Your task to perform on an android device: stop showing notifications on the lock screen Image 0: 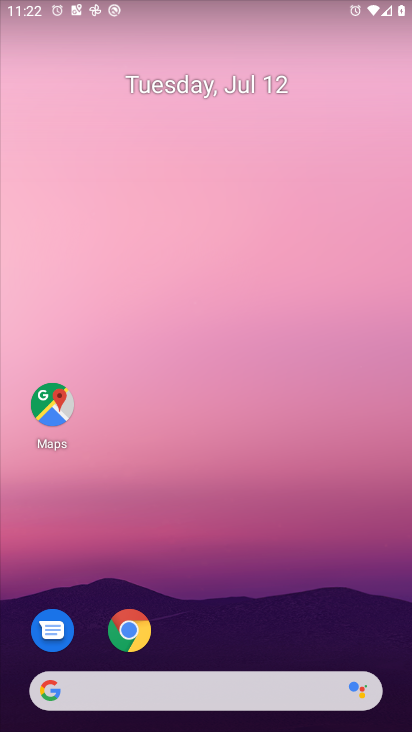
Step 0: drag from (239, 617) to (212, 138)
Your task to perform on an android device: stop showing notifications on the lock screen Image 1: 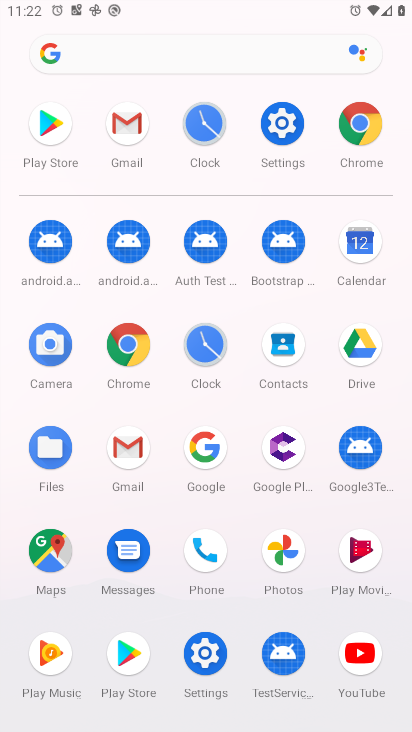
Step 1: click (281, 124)
Your task to perform on an android device: stop showing notifications on the lock screen Image 2: 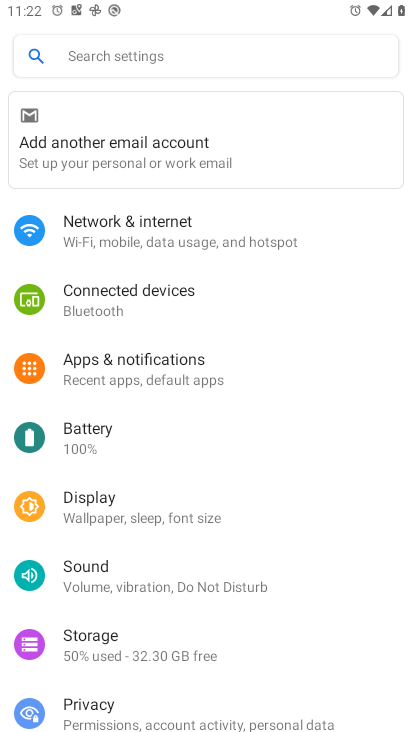
Step 2: click (123, 358)
Your task to perform on an android device: stop showing notifications on the lock screen Image 3: 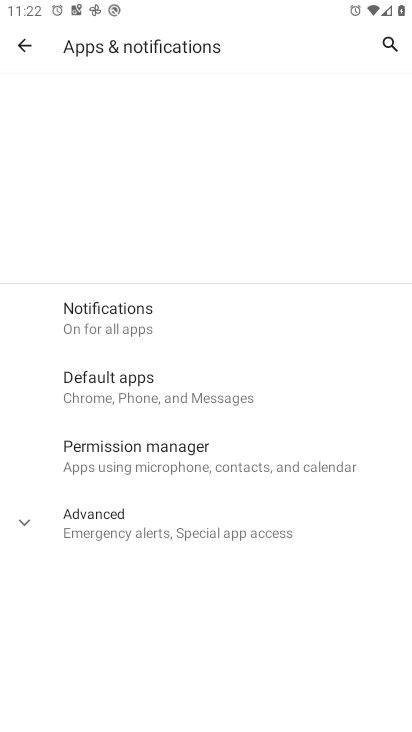
Step 3: click (97, 321)
Your task to perform on an android device: stop showing notifications on the lock screen Image 4: 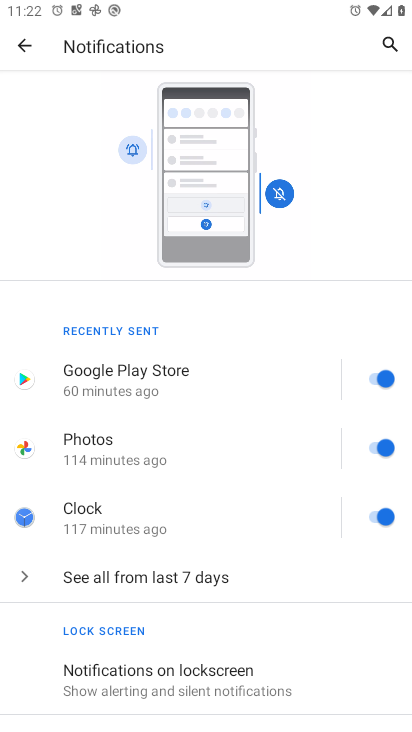
Step 4: click (142, 690)
Your task to perform on an android device: stop showing notifications on the lock screen Image 5: 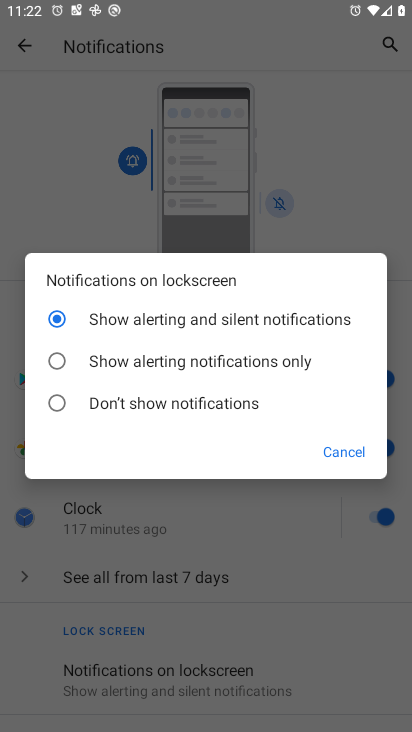
Step 5: click (54, 407)
Your task to perform on an android device: stop showing notifications on the lock screen Image 6: 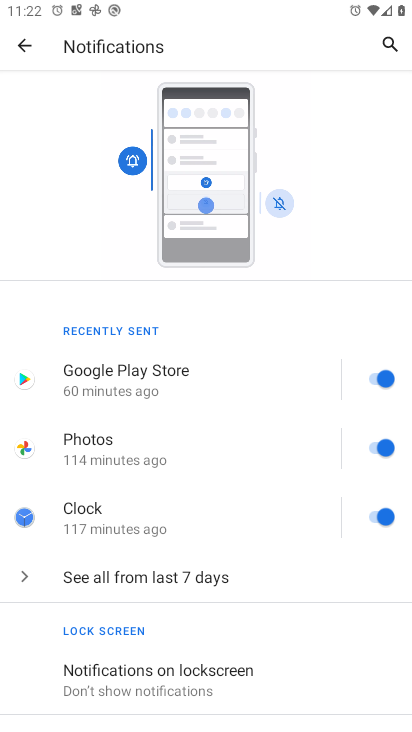
Step 6: task complete